Your task to perform on an android device: Open calendar and show me the fourth week of next month Image 0: 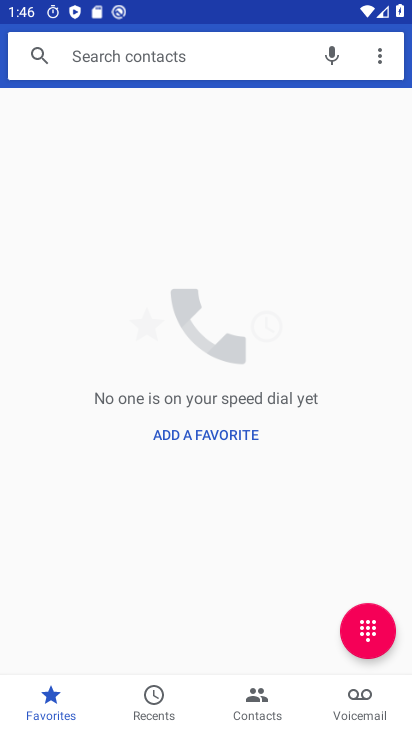
Step 0: press home button
Your task to perform on an android device: Open calendar and show me the fourth week of next month Image 1: 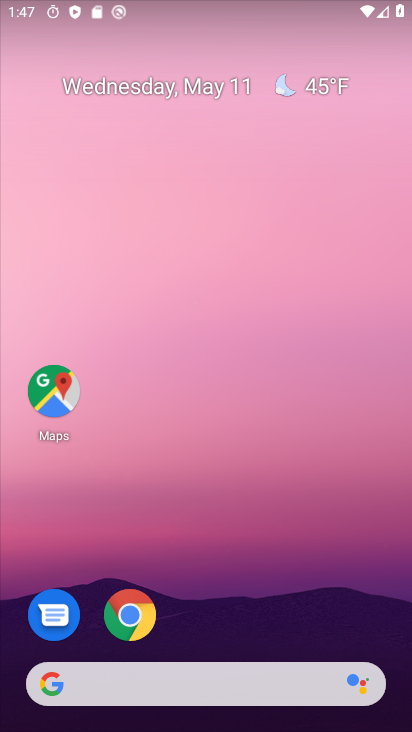
Step 1: drag from (210, 684) to (218, 231)
Your task to perform on an android device: Open calendar and show me the fourth week of next month Image 2: 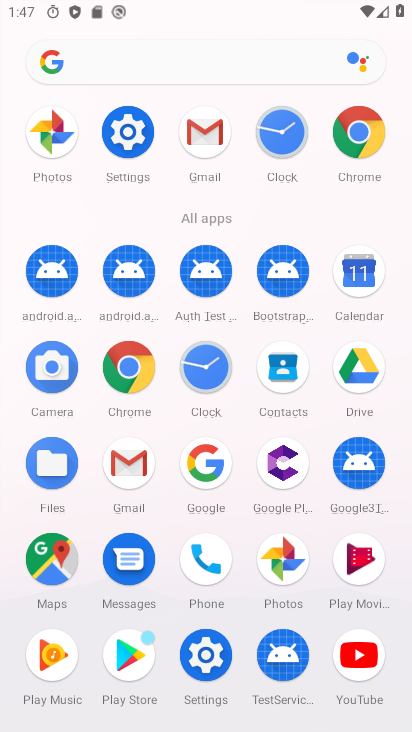
Step 2: click (361, 273)
Your task to perform on an android device: Open calendar and show me the fourth week of next month Image 3: 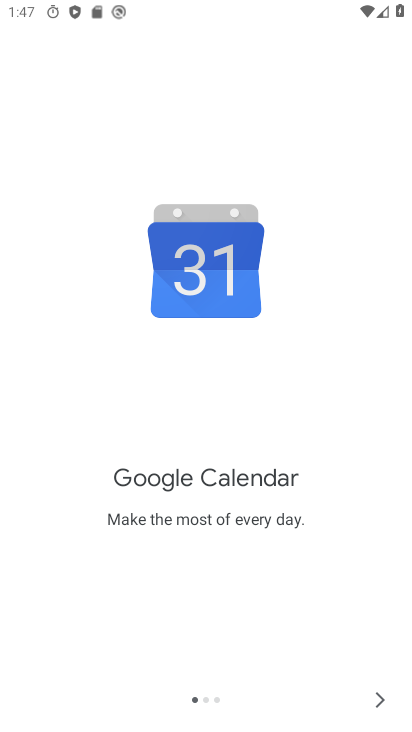
Step 3: click (370, 706)
Your task to perform on an android device: Open calendar and show me the fourth week of next month Image 4: 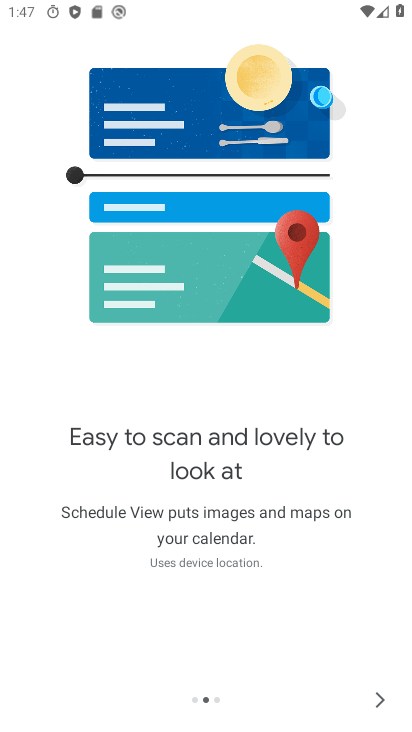
Step 4: click (376, 703)
Your task to perform on an android device: Open calendar and show me the fourth week of next month Image 5: 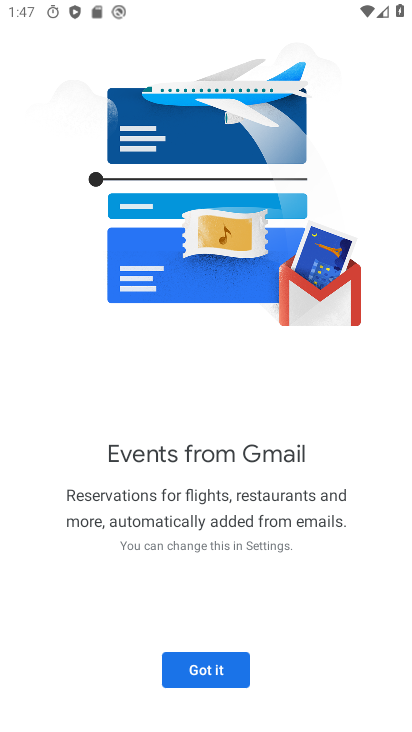
Step 5: click (204, 678)
Your task to perform on an android device: Open calendar and show me the fourth week of next month Image 6: 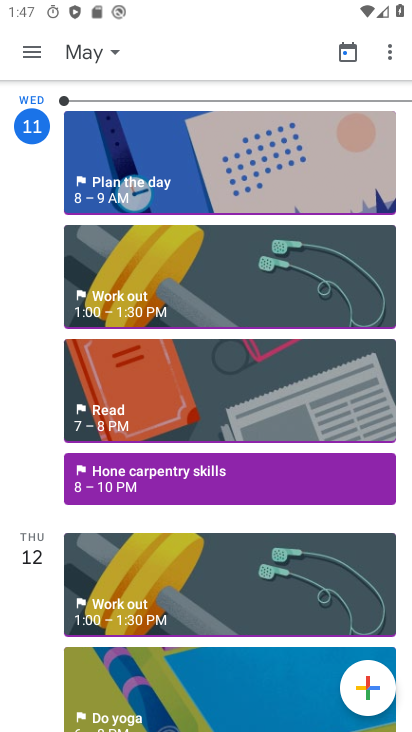
Step 6: click (31, 57)
Your task to perform on an android device: Open calendar and show me the fourth week of next month Image 7: 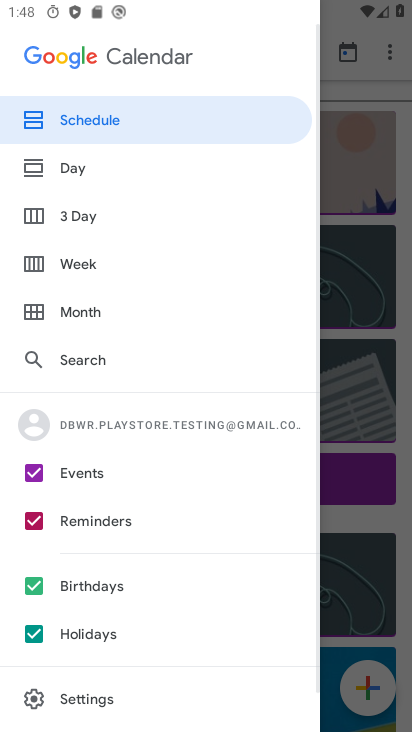
Step 7: click (95, 311)
Your task to perform on an android device: Open calendar and show me the fourth week of next month Image 8: 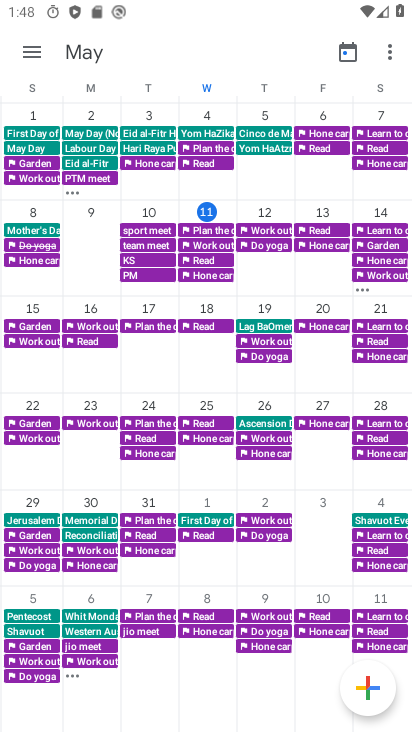
Step 8: task complete